Your task to perform on an android device: Open Android settings Image 0: 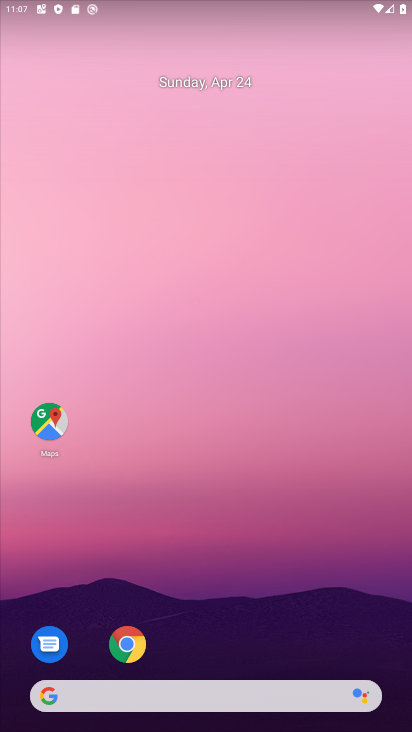
Step 0: drag from (387, 626) to (401, 46)
Your task to perform on an android device: Open Android settings Image 1: 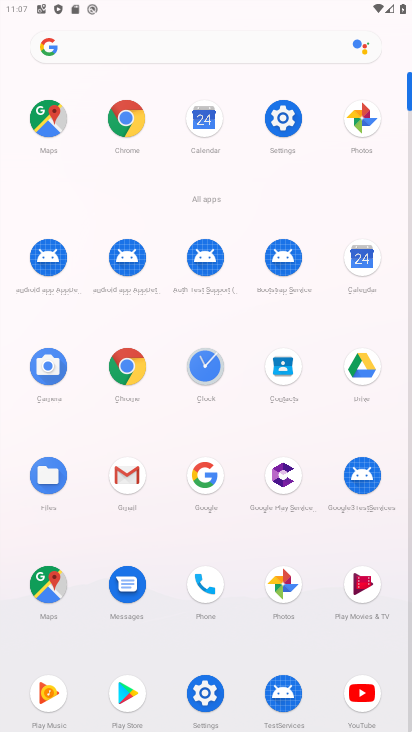
Step 1: click (280, 123)
Your task to perform on an android device: Open Android settings Image 2: 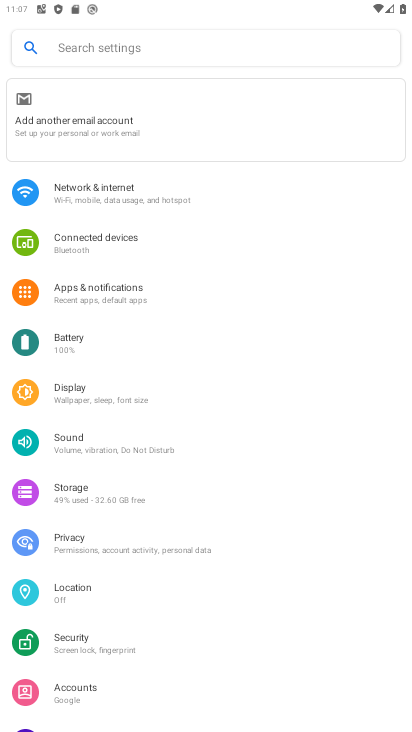
Step 2: task complete